Your task to perform on an android device: turn off notifications settings in the gmail app Image 0: 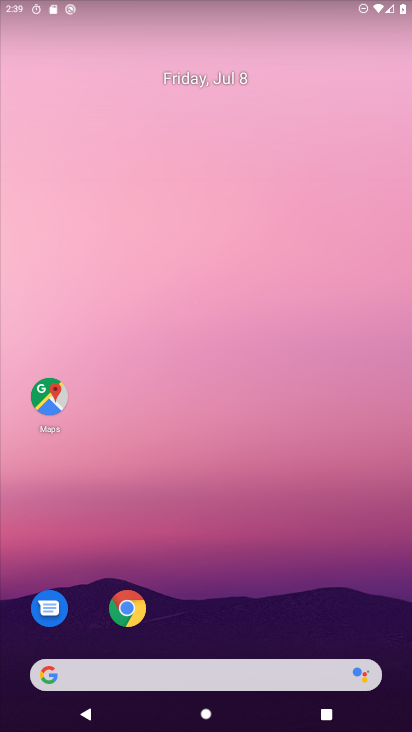
Step 0: drag from (251, 721) to (256, 198)
Your task to perform on an android device: turn off notifications settings in the gmail app Image 1: 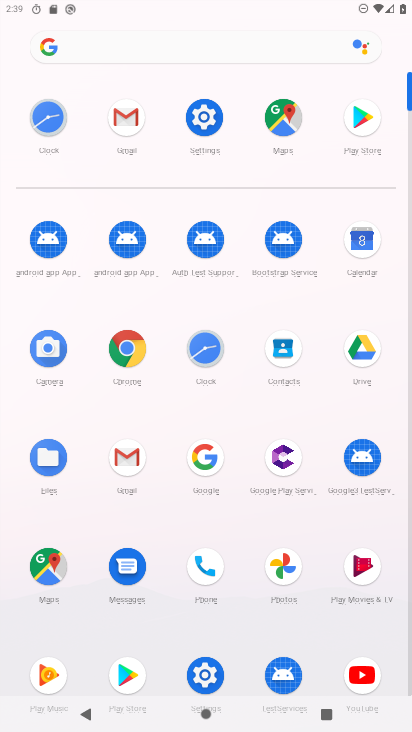
Step 1: click (128, 460)
Your task to perform on an android device: turn off notifications settings in the gmail app Image 2: 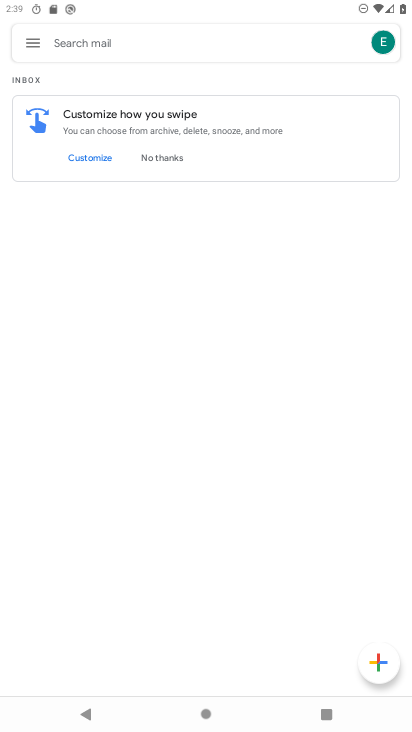
Step 2: click (33, 44)
Your task to perform on an android device: turn off notifications settings in the gmail app Image 3: 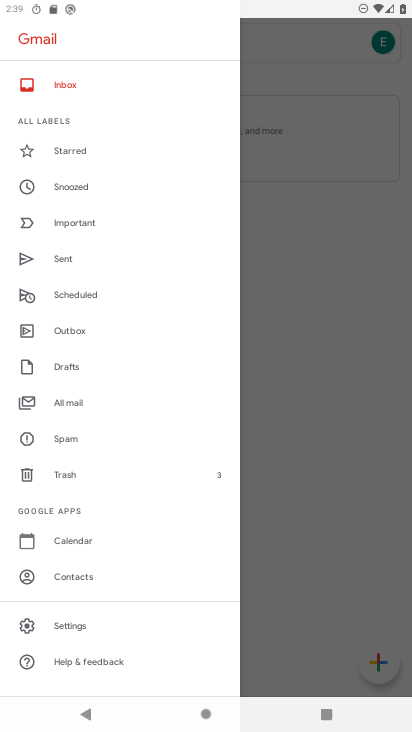
Step 3: click (69, 623)
Your task to perform on an android device: turn off notifications settings in the gmail app Image 4: 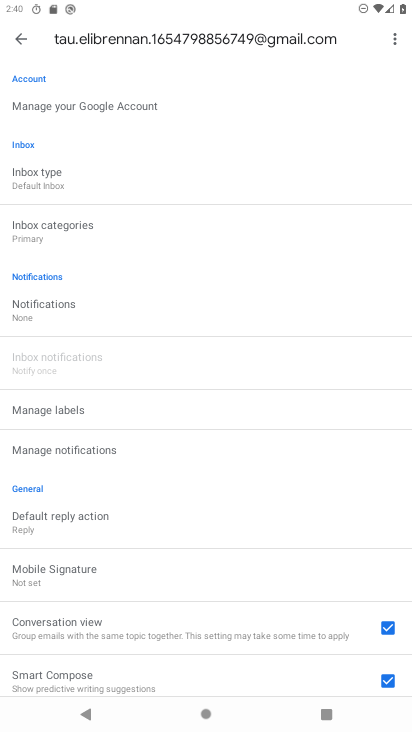
Step 4: task complete